Your task to perform on an android device: What's on my calendar today? Image 0: 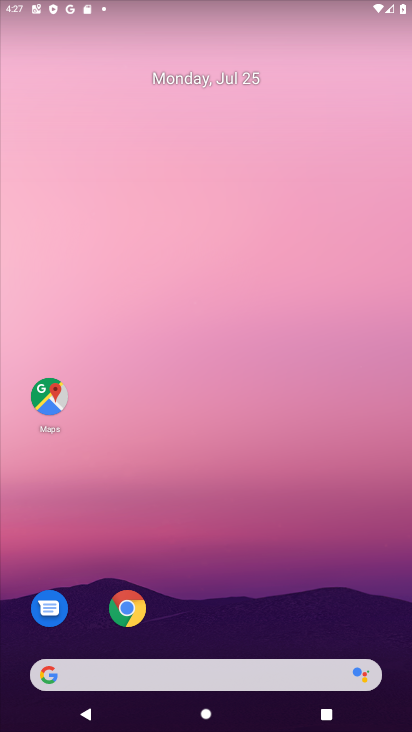
Step 0: press home button
Your task to perform on an android device: What's on my calendar today? Image 1: 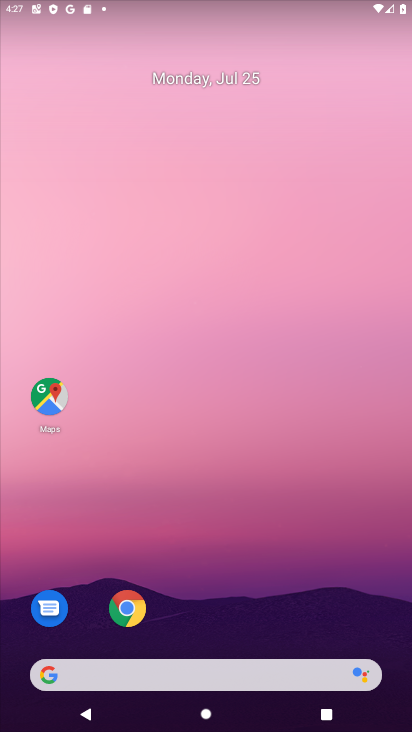
Step 1: drag from (222, 630) to (212, 88)
Your task to perform on an android device: What's on my calendar today? Image 2: 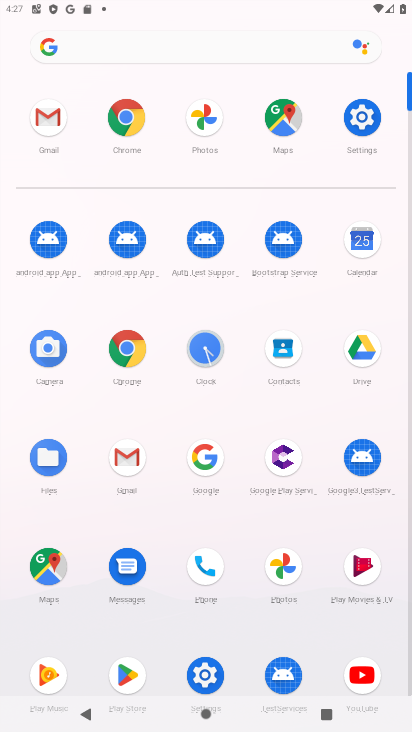
Step 2: click (357, 235)
Your task to perform on an android device: What's on my calendar today? Image 3: 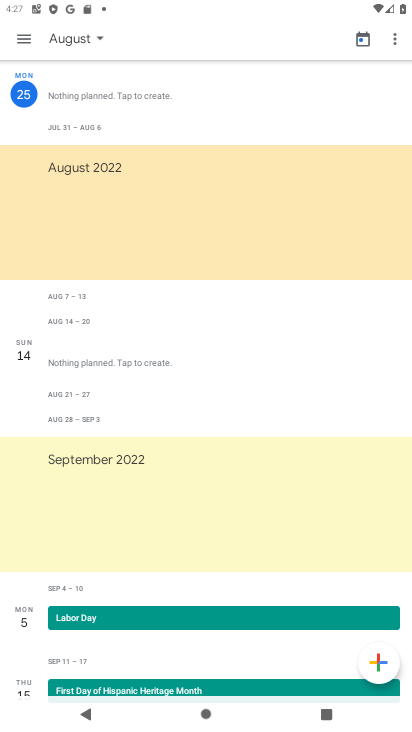
Step 3: click (16, 34)
Your task to perform on an android device: What's on my calendar today? Image 4: 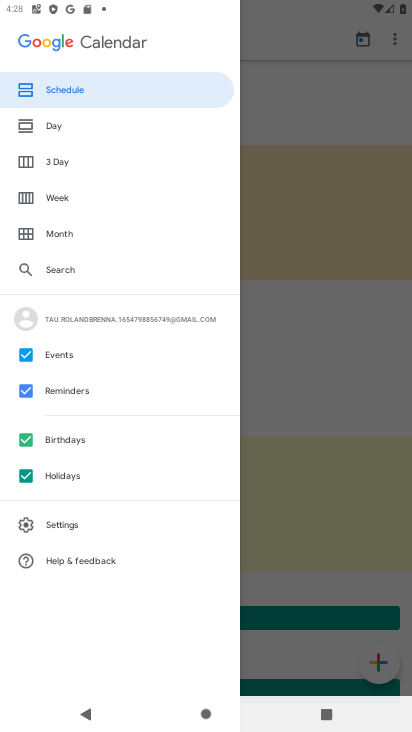
Step 4: click (49, 129)
Your task to perform on an android device: What's on my calendar today? Image 5: 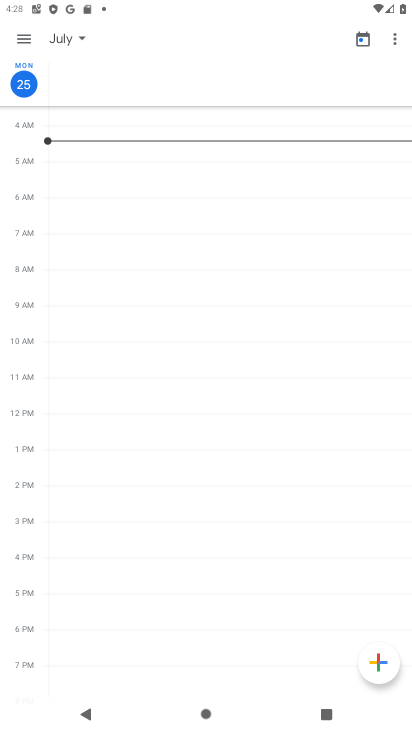
Step 5: task complete